Your task to perform on an android device: turn off sleep mode Image 0: 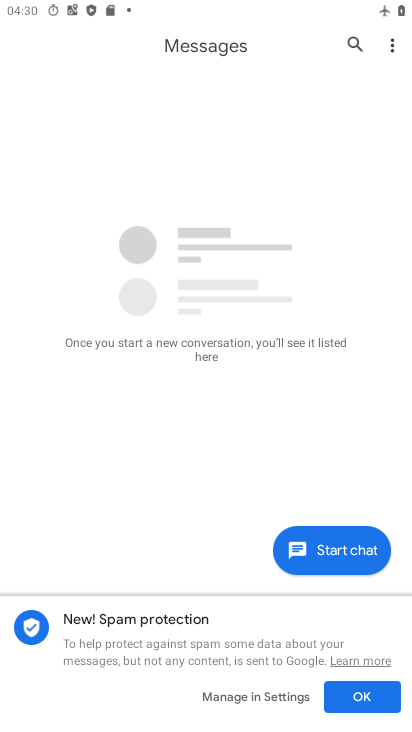
Step 0: press home button
Your task to perform on an android device: turn off sleep mode Image 1: 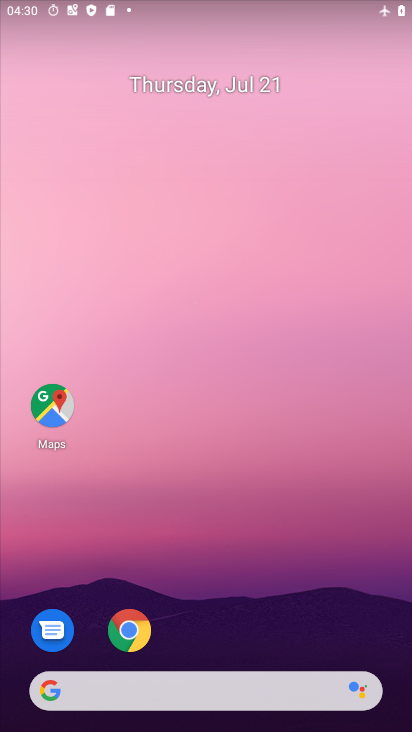
Step 1: drag from (226, 609) to (243, 77)
Your task to perform on an android device: turn off sleep mode Image 2: 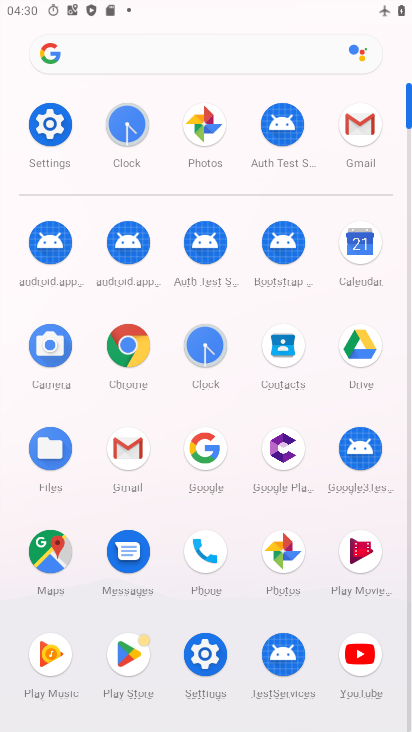
Step 2: click (48, 125)
Your task to perform on an android device: turn off sleep mode Image 3: 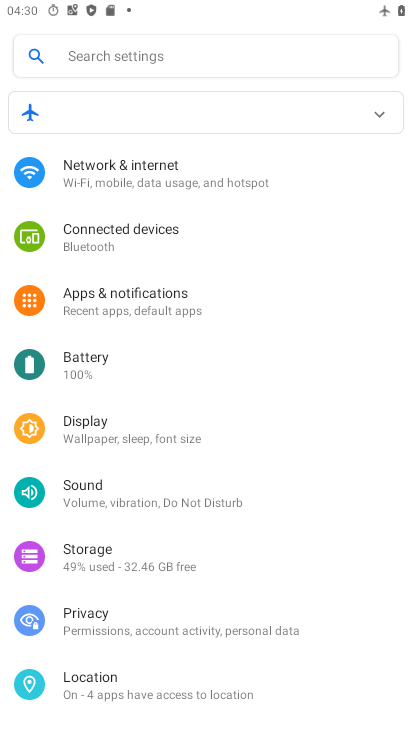
Step 3: task complete